Your task to perform on an android device: change the upload size in google photos Image 0: 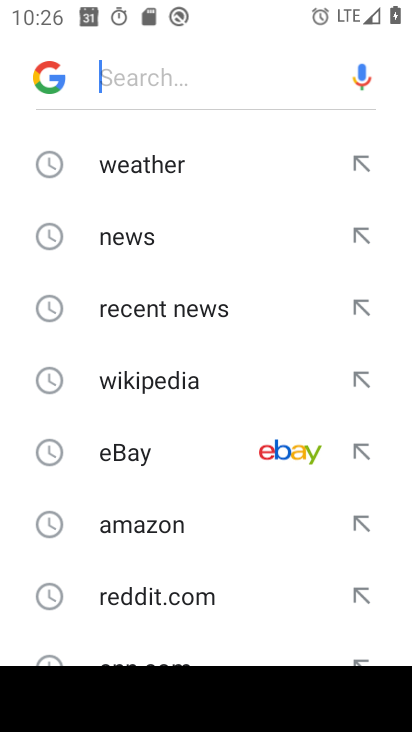
Step 0: press back button
Your task to perform on an android device: change the upload size in google photos Image 1: 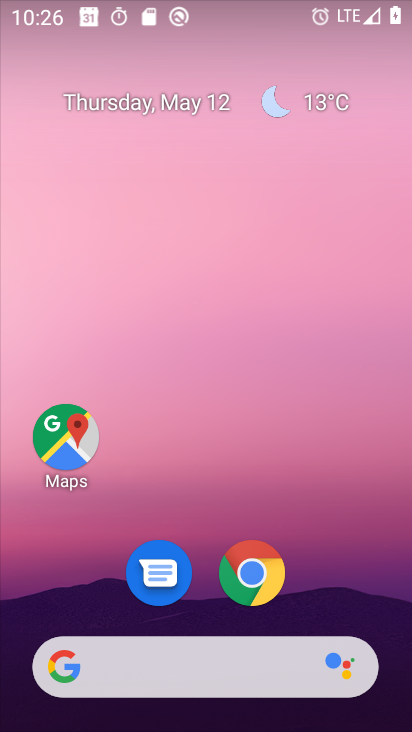
Step 1: drag from (394, 672) to (357, 367)
Your task to perform on an android device: change the upload size in google photos Image 2: 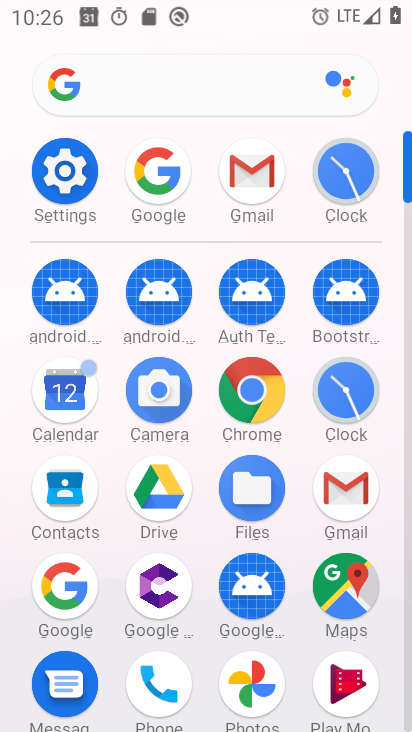
Step 2: click (241, 697)
Your task to perform on an android device: change the upload size in google photos Image 3: 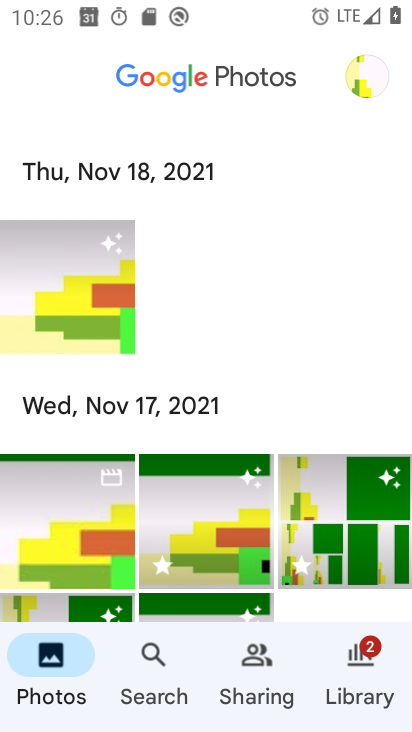
Step 3: click (372, 78)
Your task to perform on an android device: change the upload size in google photos Image 4: 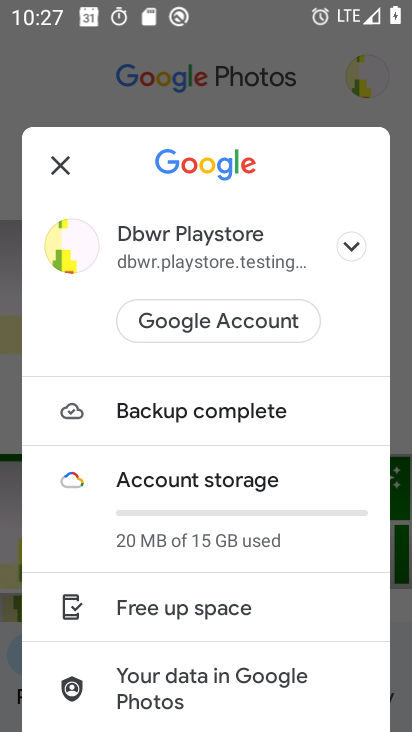
Step 4: task complete